Your task to perform on an android device: Go to eBay Image 0: 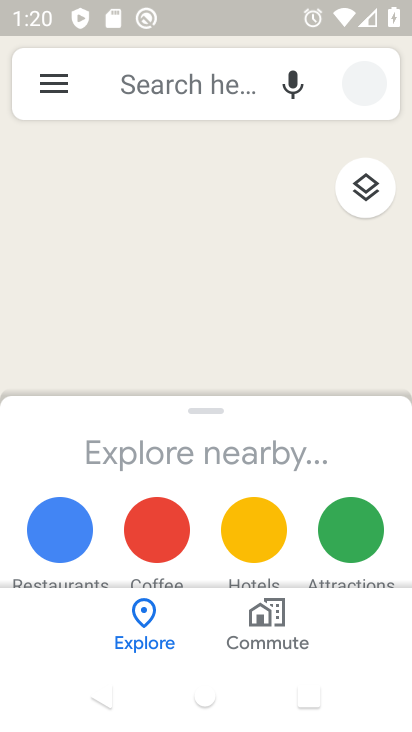
Step 0: press home button
Your task to perform on an android device: Go to eBay Image 1: 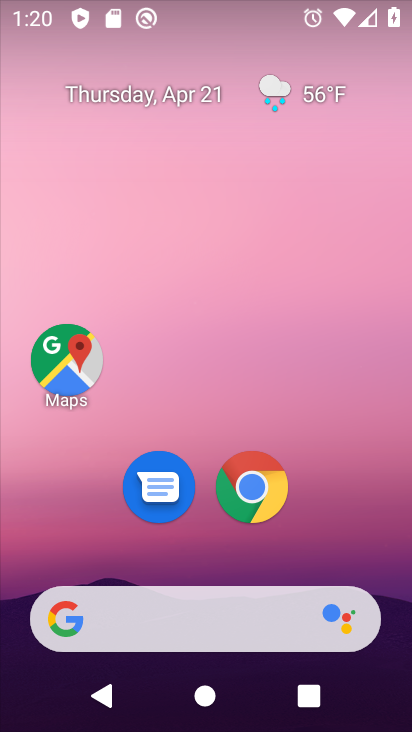
Step 1: click (258, 477)
Your task to perform on an android device: Go to eBay Image 2: 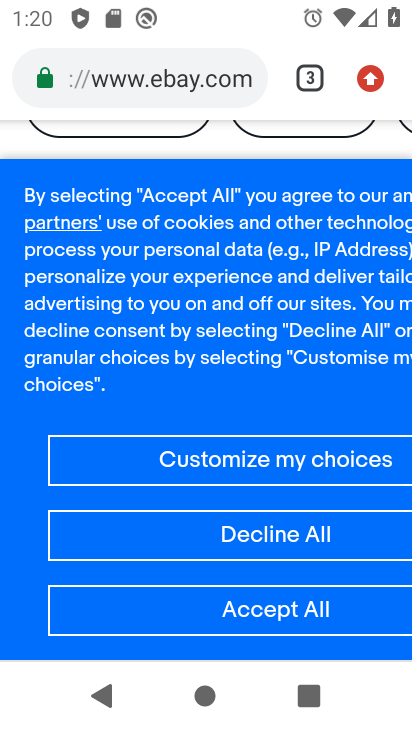
Step 2: task complete